Your task to perform on an android device: Open Yahoo.com Image 0: 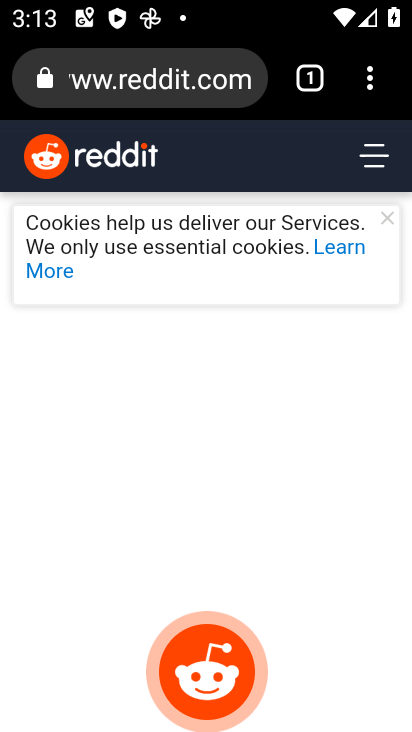
Step 0: press home button
Your task to perform on an android device: Open Yahoo.com Image 1: 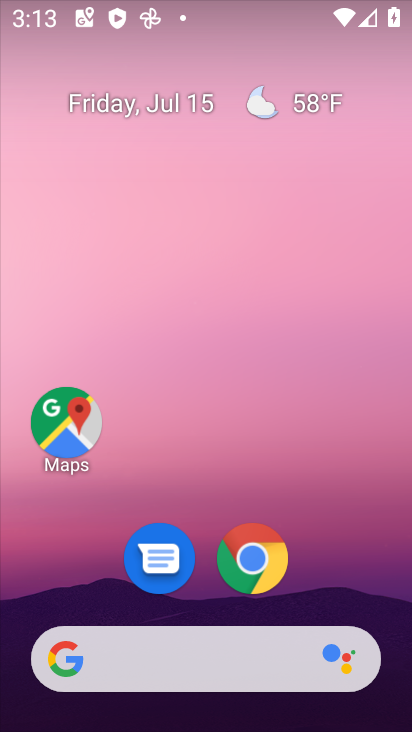
Step 1: drag from (365, 577) to (367, 83)
Your task to perform on an android device: Open Yahoo.com Image 2: 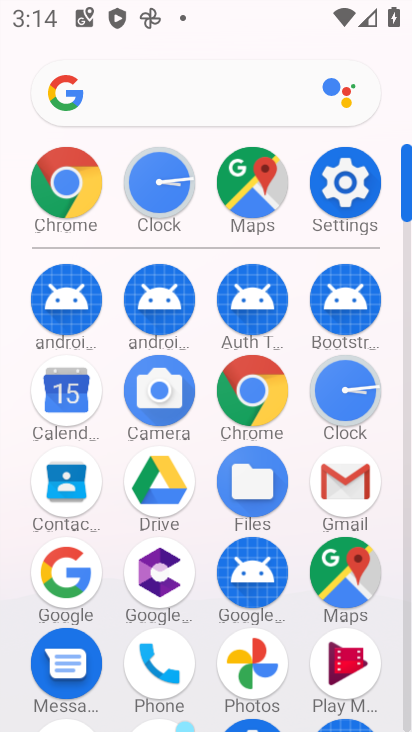
Step 2: click (262, 385)
Your task to perform on an android device: Open Yahoo.com Image 3: 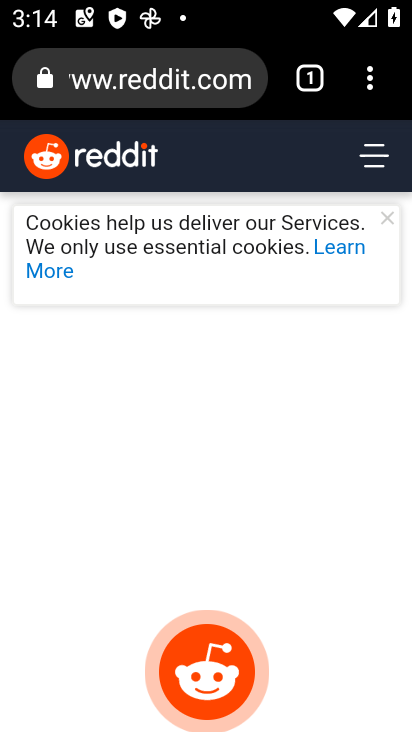
Step 3: click (221, 91)
Your task to perform on an android device: Open Yahoo.com Image 4: 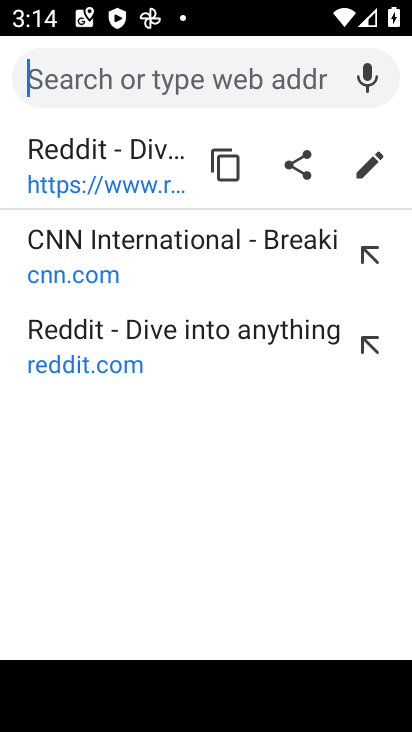
Step 4: type "yahoo.com"
Your task to perform on an android device: Open Yahoo.com Image 5: 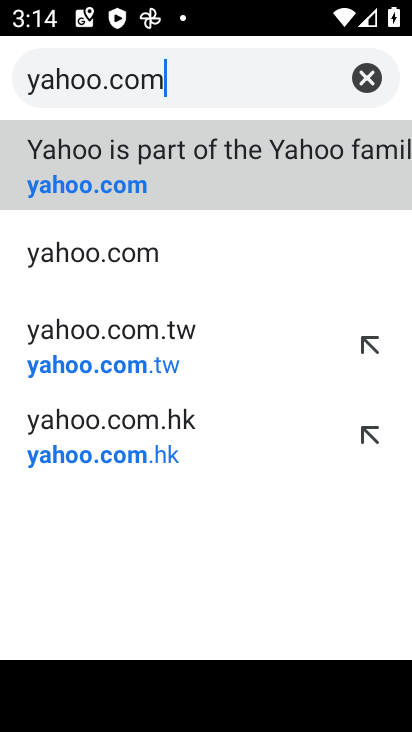
Step 5: click (256, 171)
Your task to perform on an android device: Open Yahoo.com Image 6: 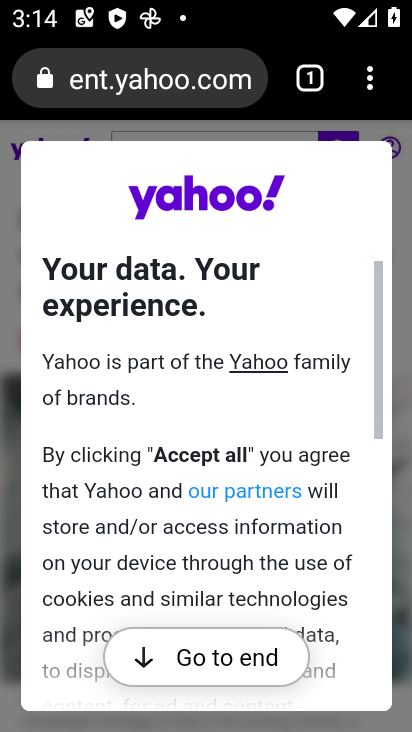
Step 6: task complete